Your task to perform on an android device: Search for pizza restaurants on Maps Image 0: 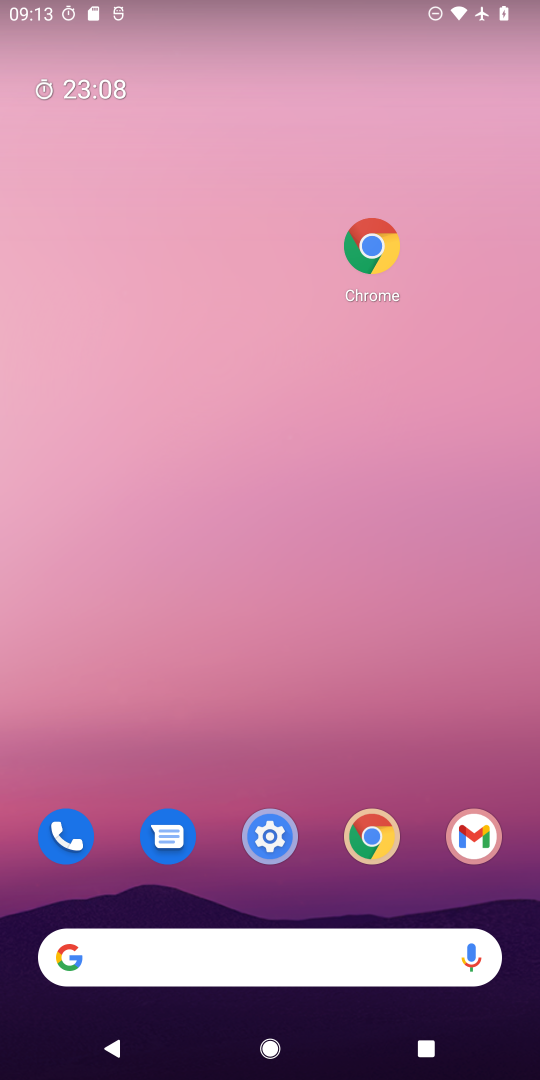
Step 0: drag from (205, 915) to (239, 232)
Your task to perform on an android device: Search for pizza restaurants on Maps Image 1: 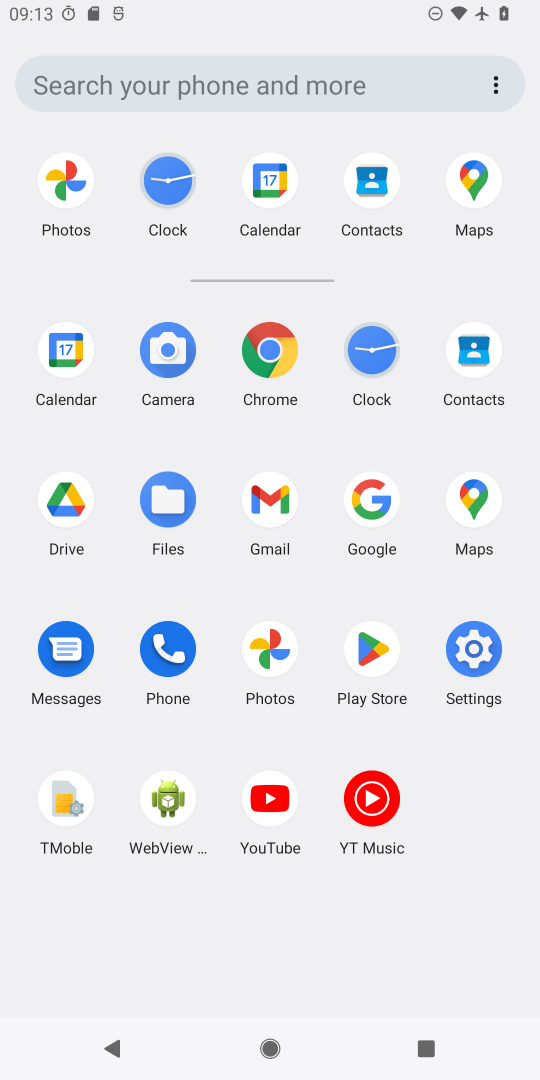
Step 1: click (481, 494)
Your task to perform on an android device: Search for pizza restaurants on Maps Image 2: 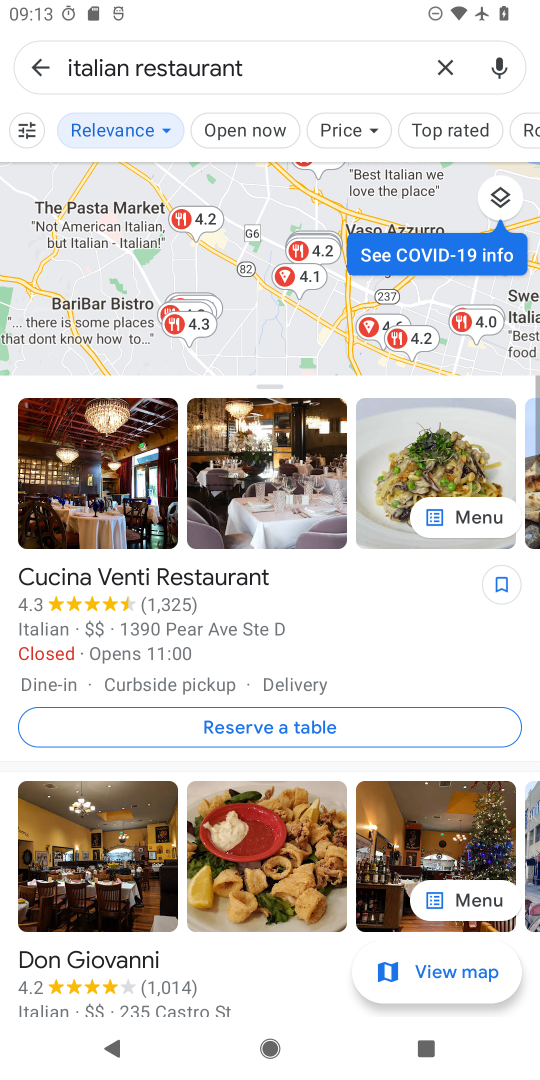
Step 2: click (447, 48)
Your task to perform on an android device: Search for pizza restaurants on Maps Image 3: 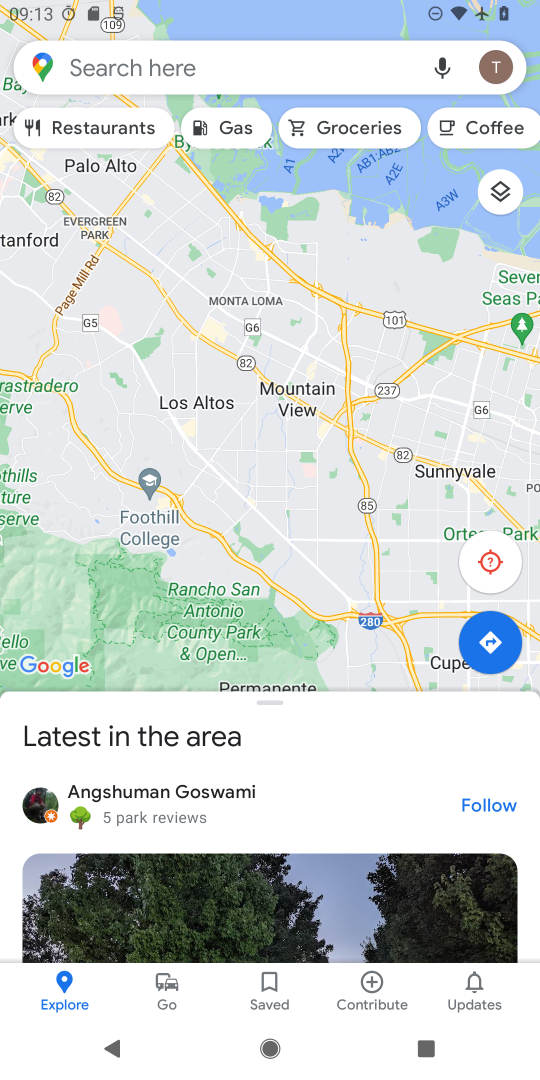
Step 3: click (274, 57)
Your task to perform on an android device: Search for pizza restaurants on Maps Image 4: 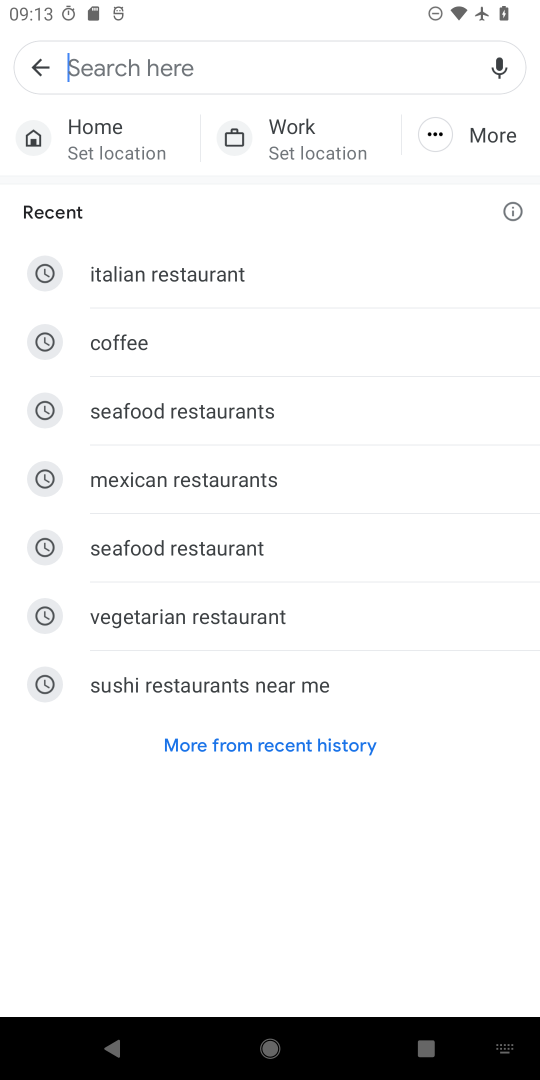
Step 4: click (213, 42)
Your task to perform on an android device: Search for pizza restaurants on Maps Image 5: 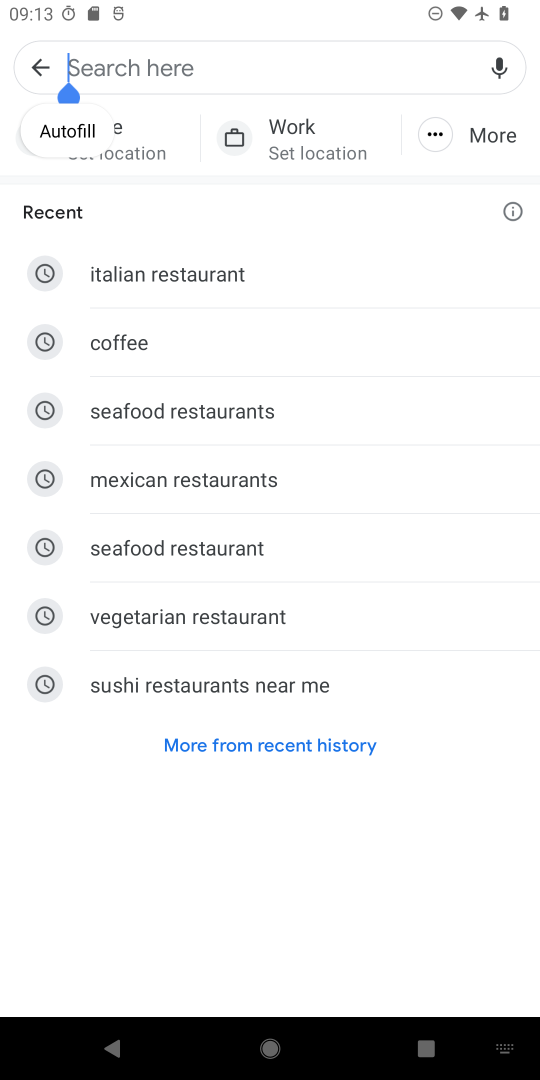
Step 5: type " pizza restaurants "
Your task to perform on an android device: Search for pizza restaurants on Maps Image 6: 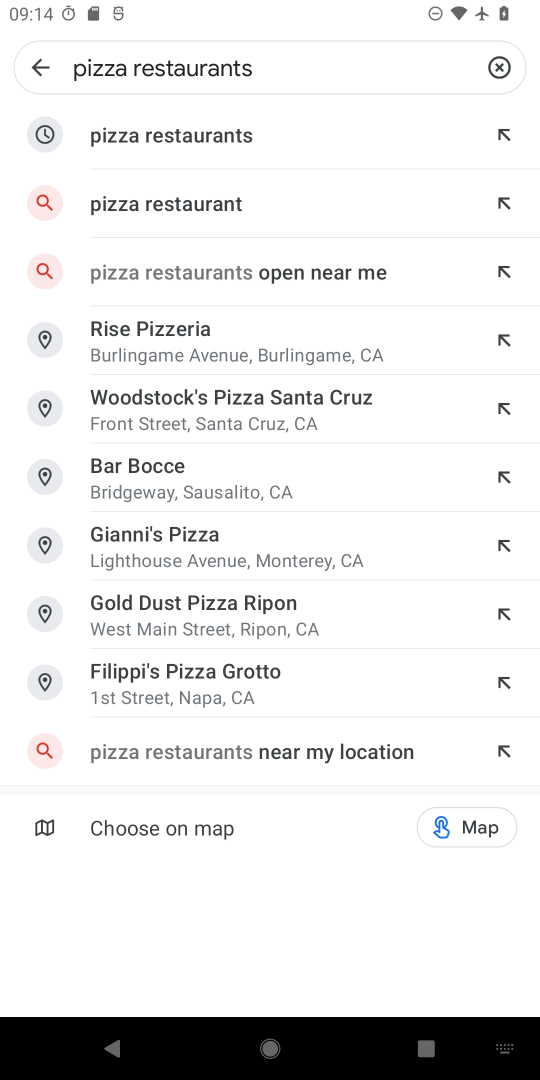
Step 6: click (174, 120)
Your task to perform on an android device: Search for pizza restaurants on Maps Image 7: 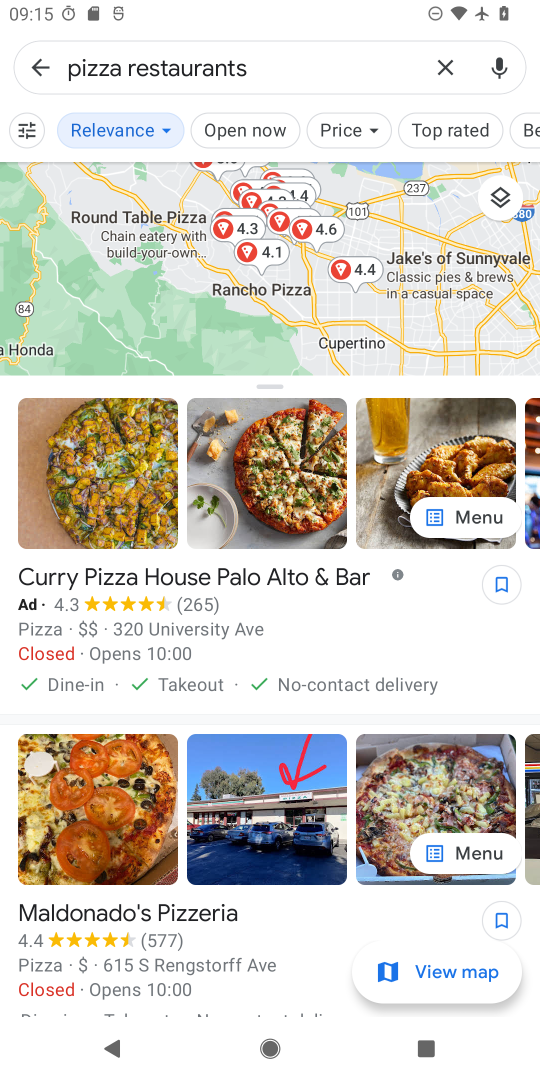
Step 7: task complete